Your task to perform on an android device: turn off notifications in google photos Image 0: 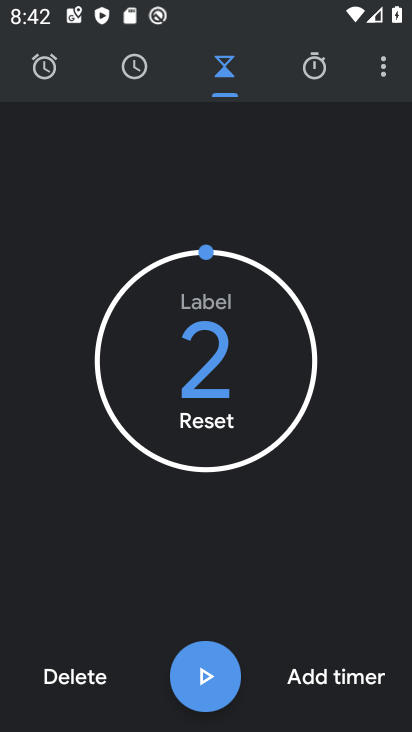
Step 0: press home button
Your task to perform on an android device: turn off notifications in google photos Image 1: 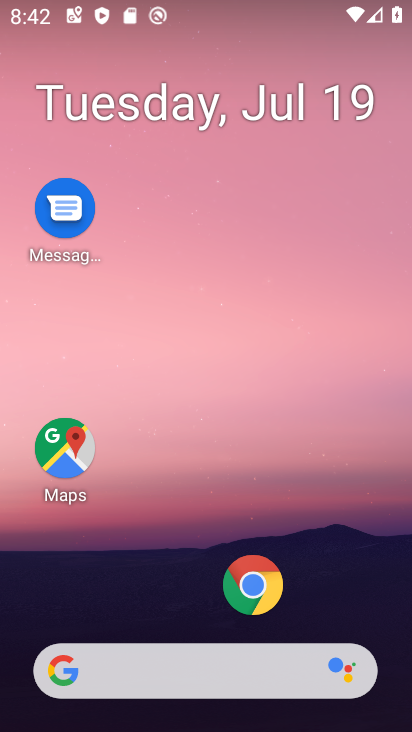
Step 1: drag from (175, 630) to (198, 28)
Your task to perform on an android device: turn off notifications in google photos Image 2: 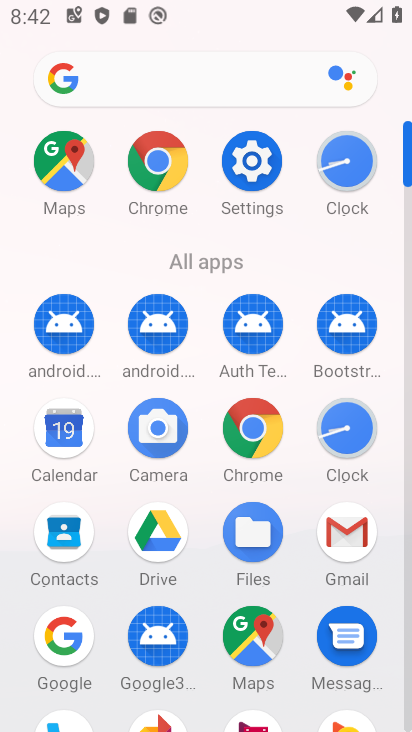
Step 2: drag from (193, 580) to (328, 65)
Your task to perform on an android device: turn off notifications in google photos Image 3: 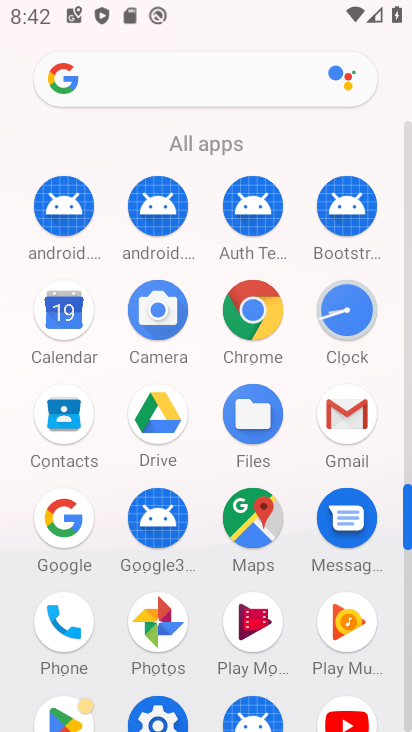
Step 3: click (150, 612)
Your task to perform on an android device: turn off notifications in google photos Image 4: 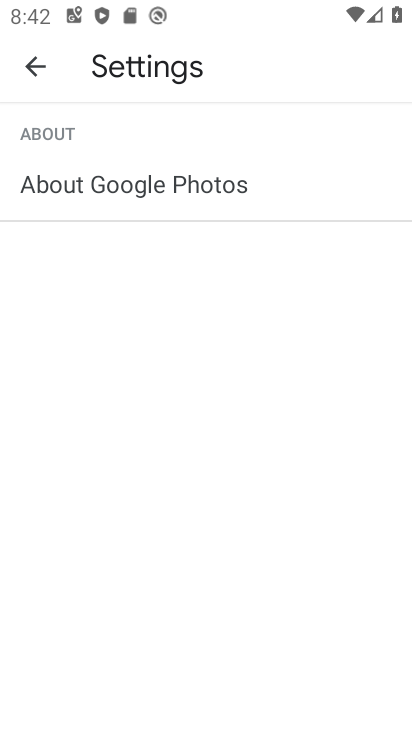
Step 4: click (28, 70)
Your task to perform on an android device: turn off notifications in google photos Image 5: 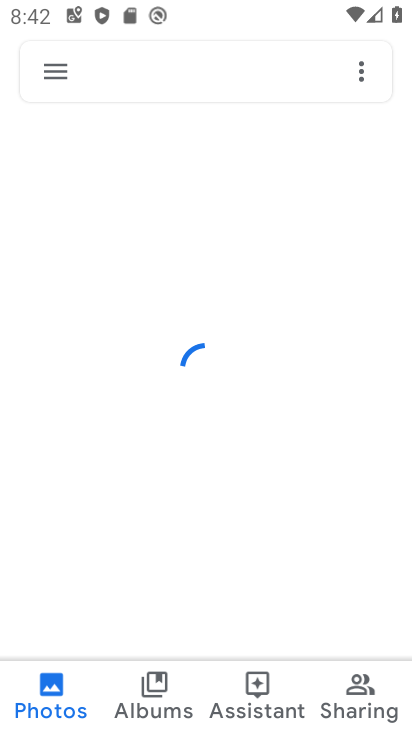
Step 5: click (39, 69)
Your task to perform on an android device: turn off notifications in google photos Image 6: 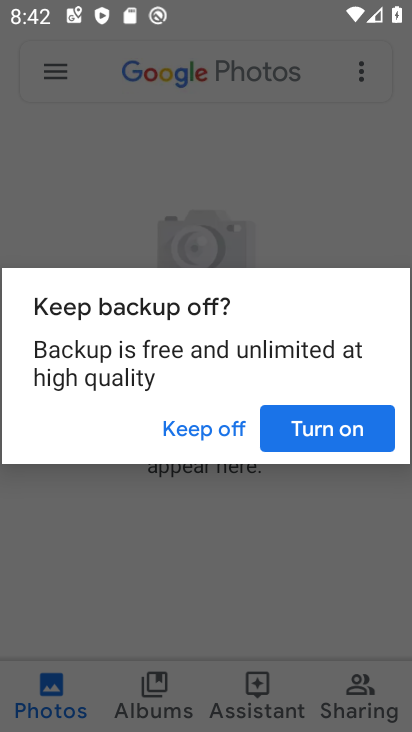
Step 6: click (310, 412)
Your task to perform on an android device: turn off notifications in google photos Image 7: 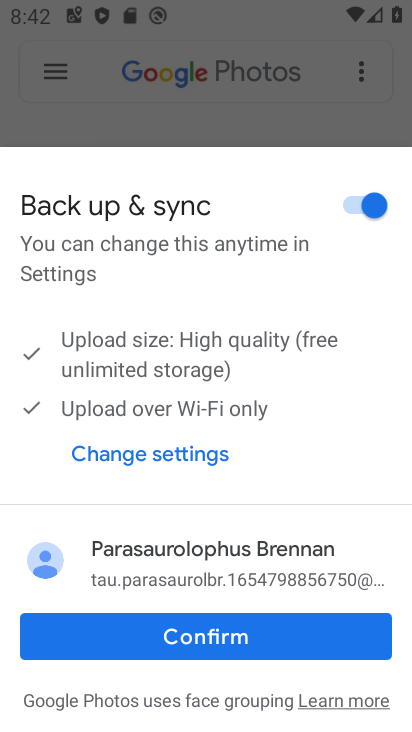
Step 7: click (174, 637)
Your task to perform on an android device: turn off notifications in google photos Image 8: 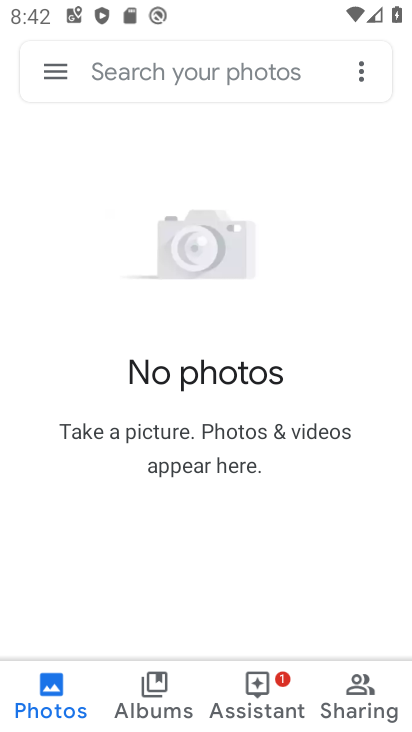
Step 8: click (51, 68)
Your task to perform on an android device: turn off notifications in google photos Image 9: 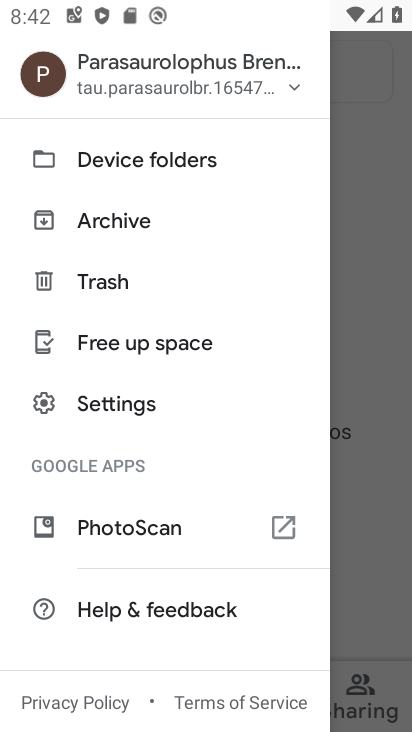
Step 9: click (77, 384)
Your task to perform on an android device: turn off notifications in google photos Image 10: 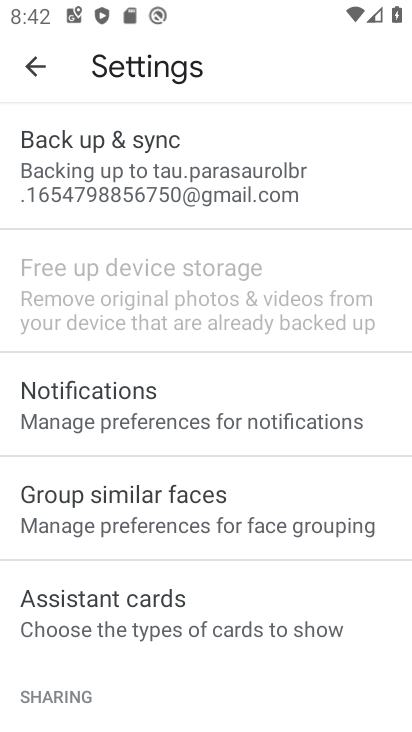
Step 10: click (92, 383)
Your task to perform on an android device: turn off notifications in google photos Image 11: 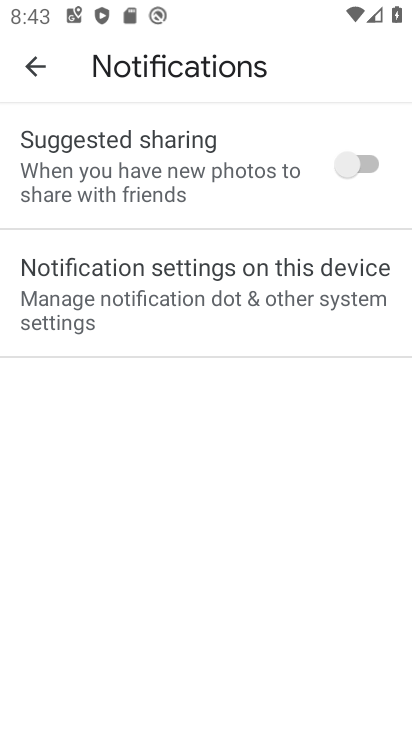
Step 11: click (158, 316)
Your task to perform on an android device: turn off notifications in google photos Image 12: 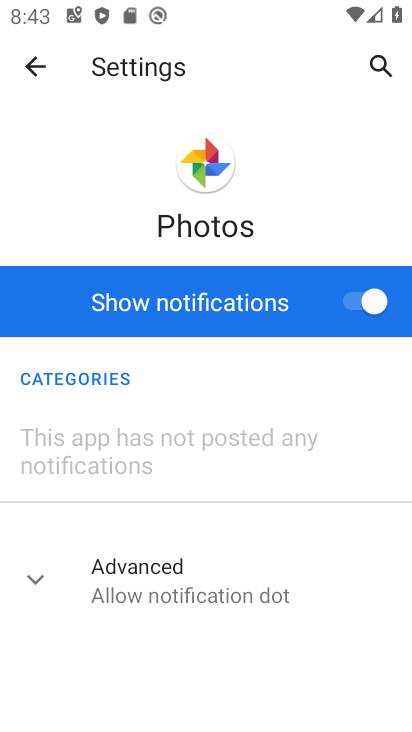
Step 12: click (373, 311)
Your task to perform on an android device: turn off notifications in google photos Image 13: 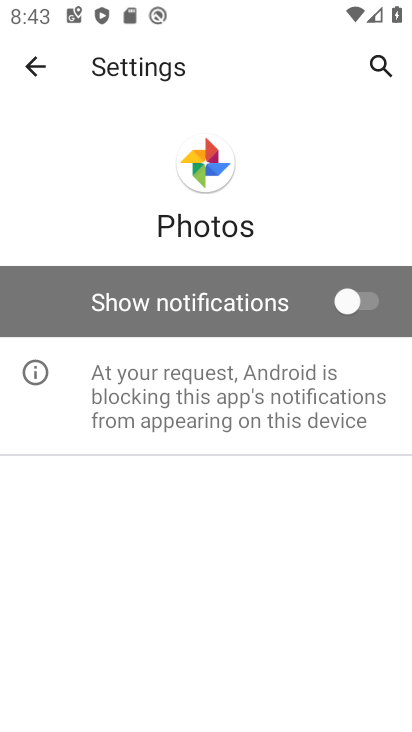
Step 13: task complete